Your task to perform on an android device: open chrome privacy settings Image 0: 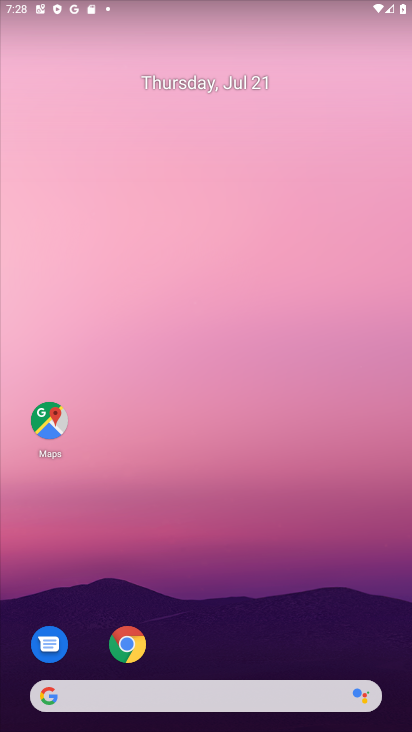
Step 0: click (252, 560)
Your task to perform on an android device: open chrome privacy settings Image 1: 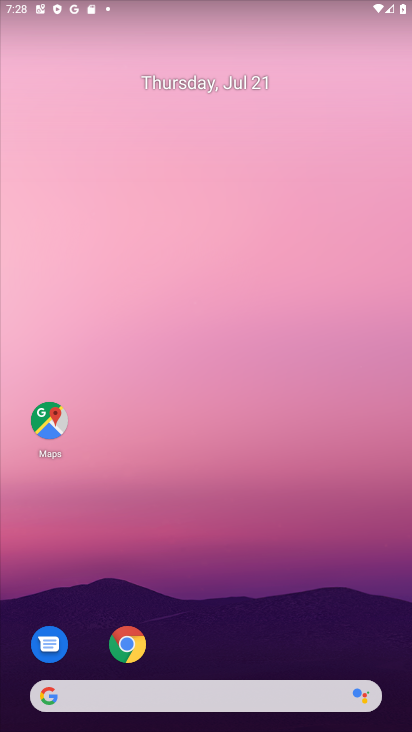
Step 1: click (125, 645)
Your task to perform on an android device: open chrome privacy settings Image 2: 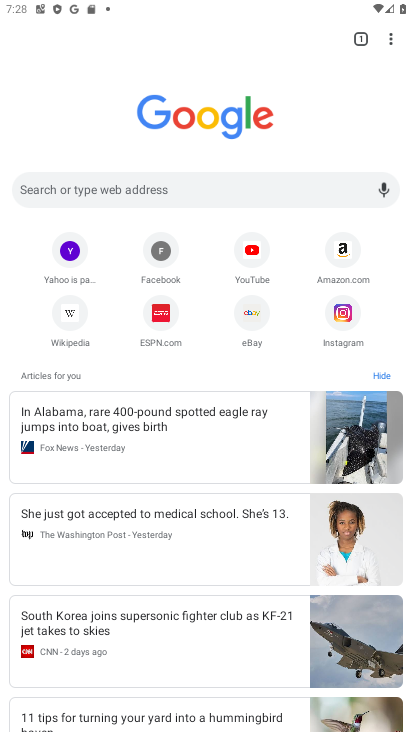
Step 2: click (394, 47)
Your task to perform on an android device: open chrome privacy settings Image 3: 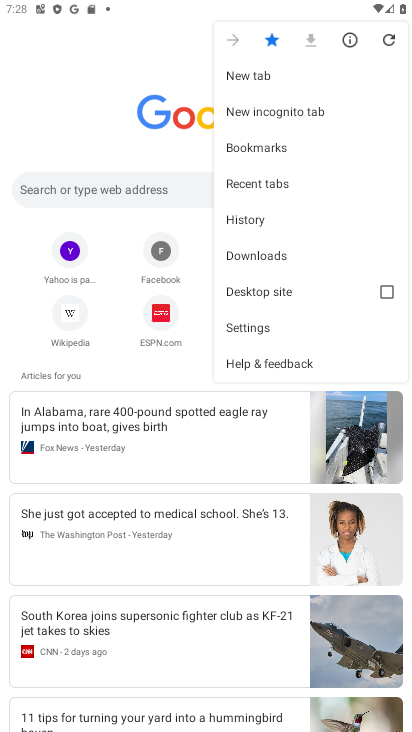
Step 3: click (248, 330)
Your task to perform on an android device: open chrome privacy settings Image 4: 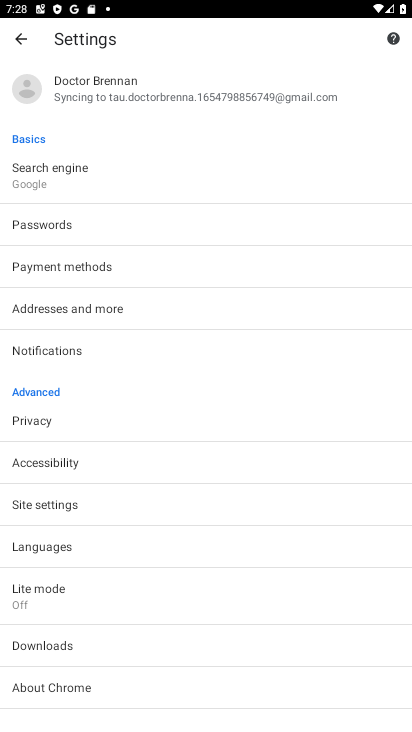
Step 4: click (65, 417)
Your task to perform on an android device: open chrome privacy settings Image 5: 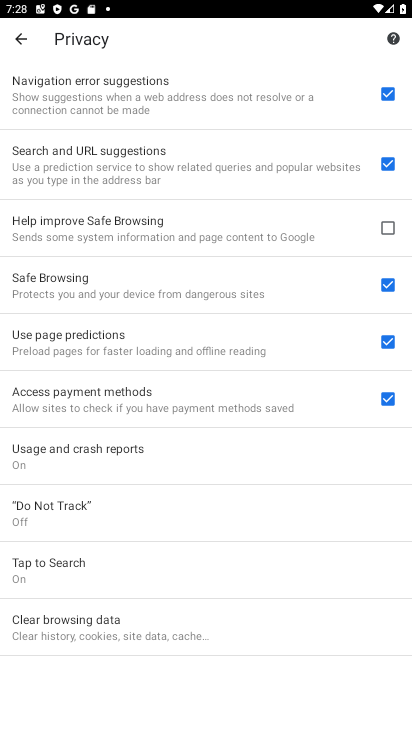
Step 5: task complete